Your task to perform on an android device: open sync settings in chrome Image 0: 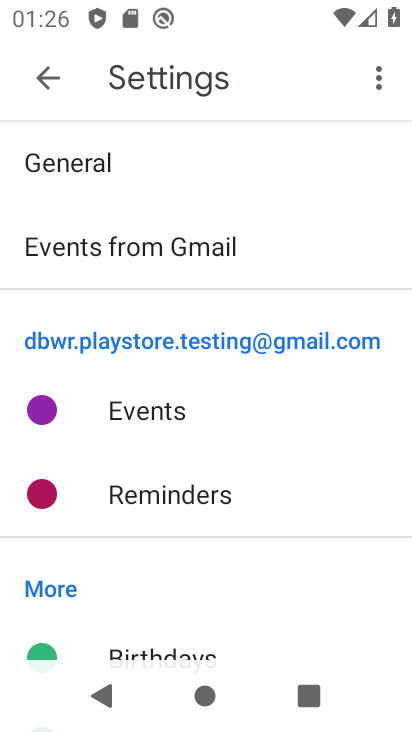
Step 0: press home button
Your task to perform on an android device: open sync settings in chrome Image 1: 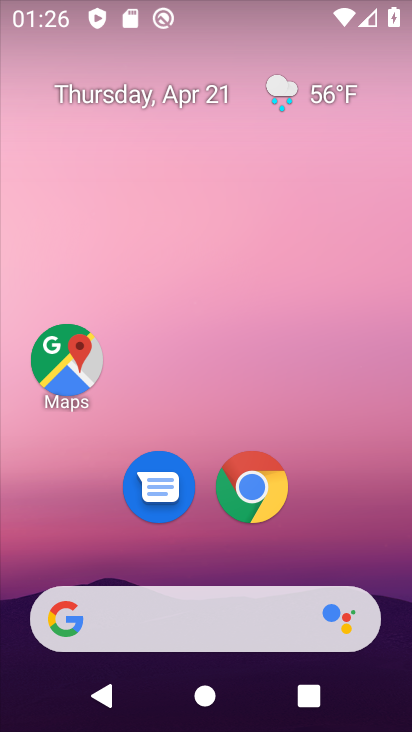
Step 1: click (258, 491)
Your task to perform on an android device: open sync settings in chrome Image 2: 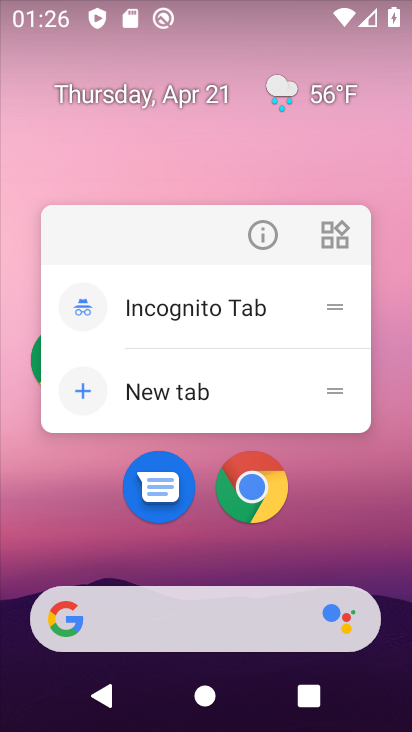
Step 2: click (258, 491)
Your task to perform on an android device: open sync settings in chrome Image 3: 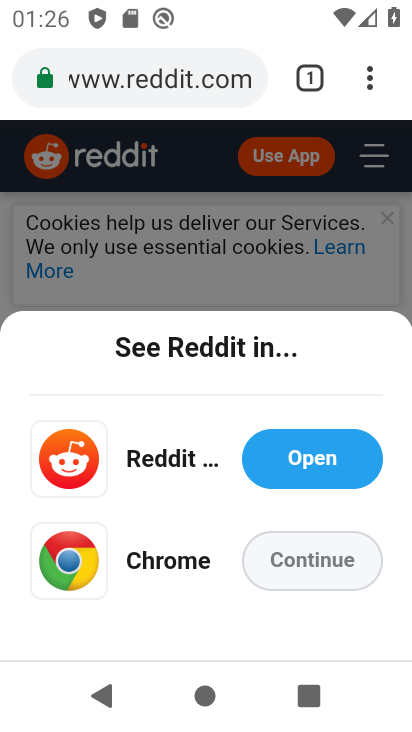
Step 3: click (359, 69)
Your task to perform on an android device: open sync settings in chrome Image 4: 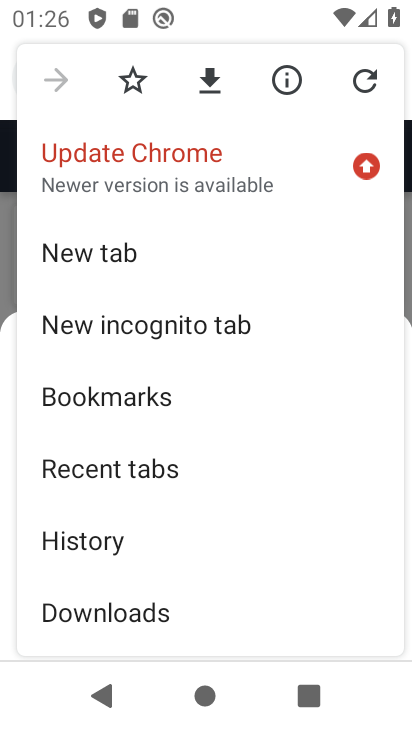
Step 4: drag from (153, 578) to (190, 452)
Your task to perform on an android device: open sync settings in chrome Image 5: 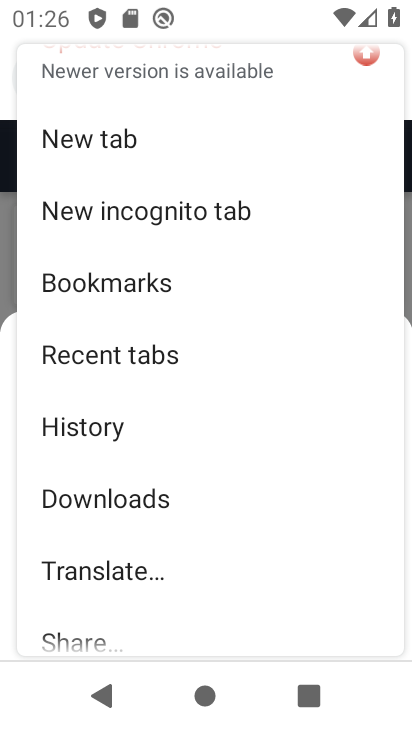
Step 5: drag from (162, 564) to (165, 450)
Your task to perform on an android device: open sync settings in chrome Image 6: 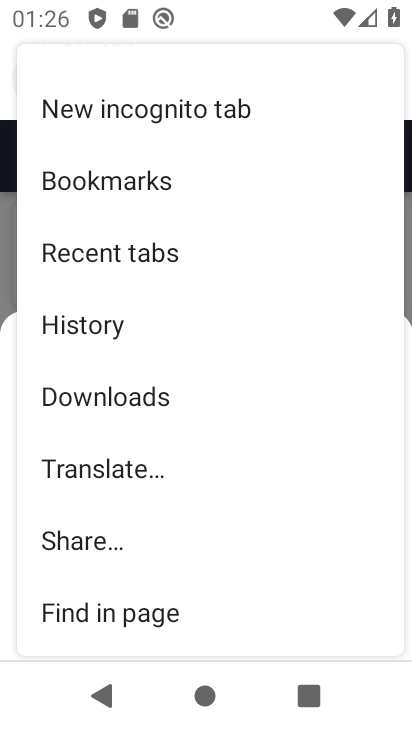
Step 6: drag from (166, 509) to (173, 397)
Your task to perform on an android device: open sync settings in chrome Image 7: 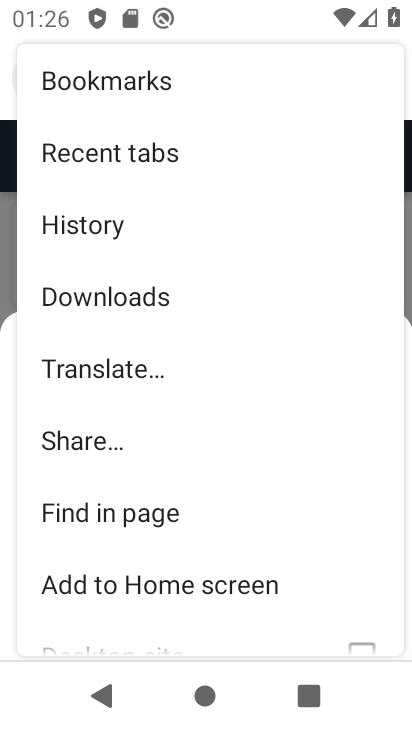
Step 7: drag from (181, 508) to (190, 411)
Your task to perform on an android device: open sync settings in chrome Image 8: 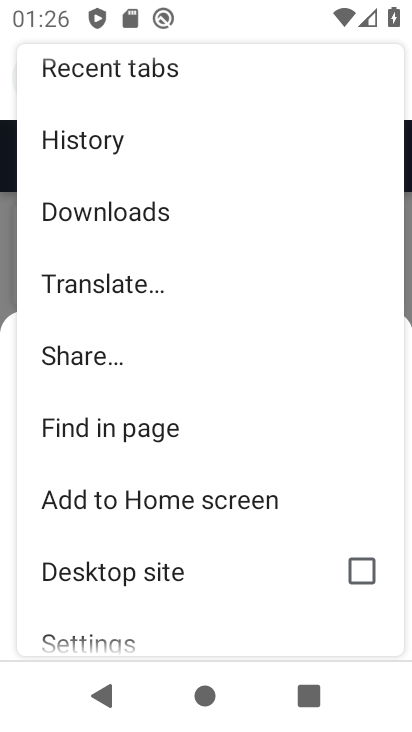
Step 8: drag from (166, 558) to (196, 435)
Your task to perform on an android device: open sync settings in chrome Image 9: 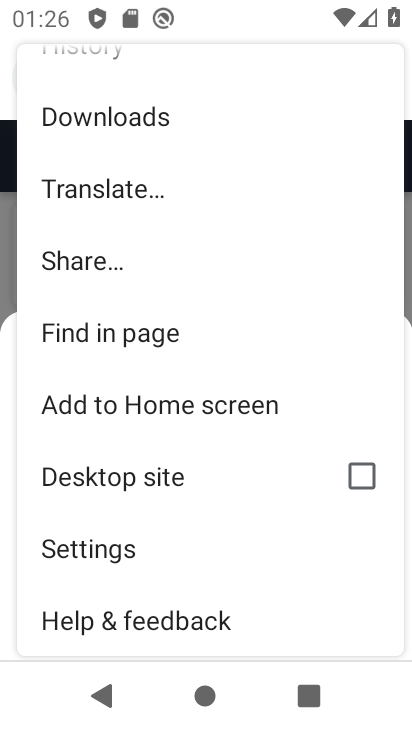
Step 9: click (136, 542)
Your task to perform on an android device: open sync settings in chrome Image 10: 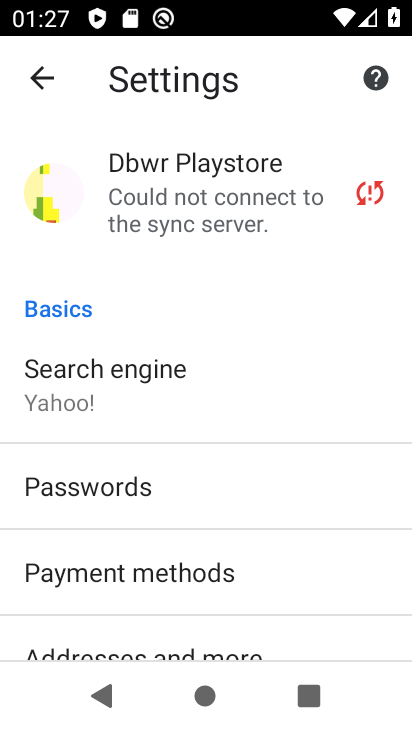
Step 10: click (207, 190)
Your task to perform on an android device: open sync settings in chrome Image 11: 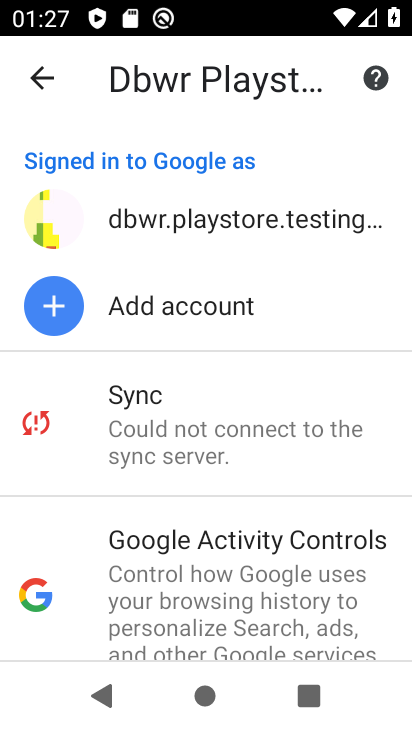
Step 11: click (211, 430)
Your task to perform on an android device: open sync settings in chrome Image 12: 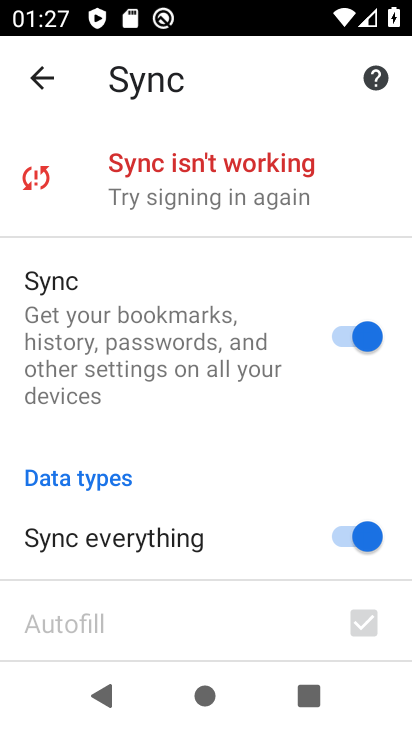
Step 12: task complete